Your task to perform on an android device: toggle pop-ups in chrome Image 0: 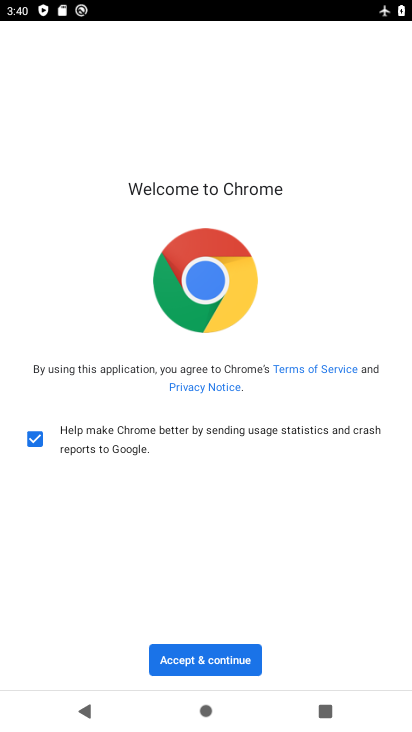
Step 0: click (190, 665)
Your task to perform on an android device: toggle pop-ups in chrome Image 1: 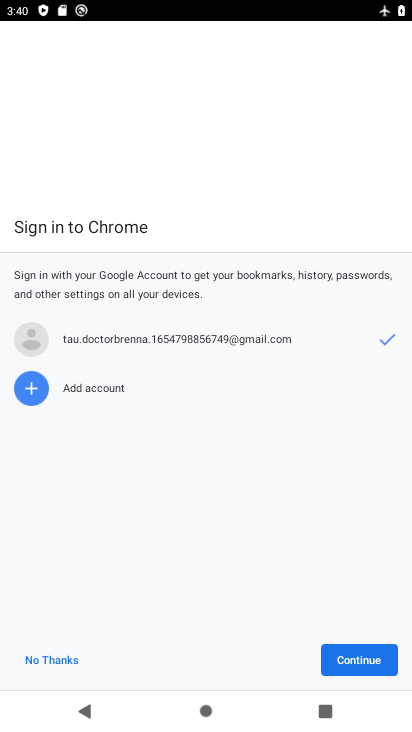
Step 1: click (365, 659)
Your task to perform on an android device: toggle pop-ups in chrome Image 2: 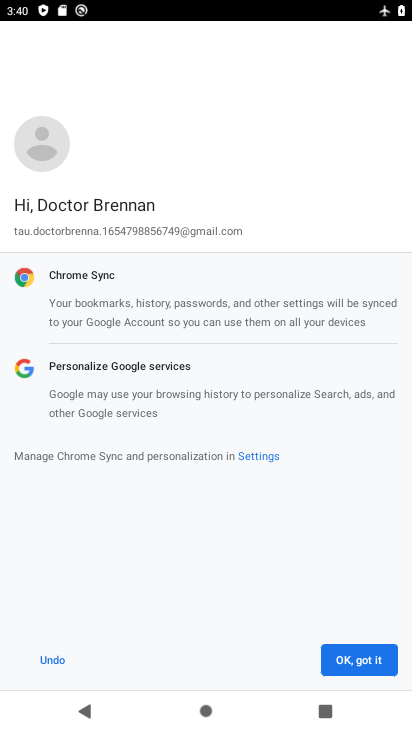
Step 2: press home button
Your task to perform on an android device: toggle pop-ups in chrome Image 3: 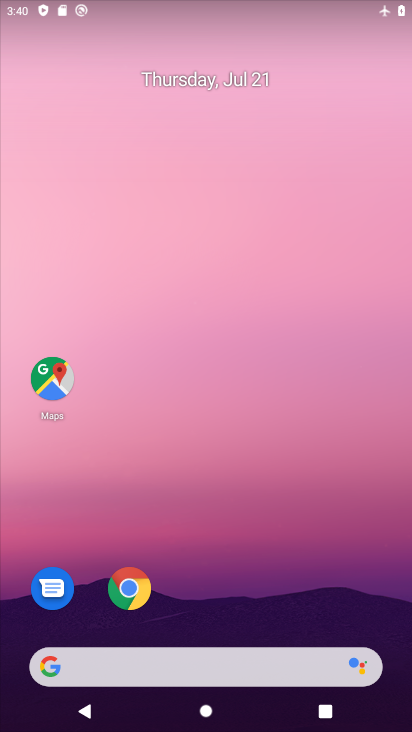
Step 3: click (120, 597)
Your task to perform on an android device: toggle pop-ups in chrome Image 4: 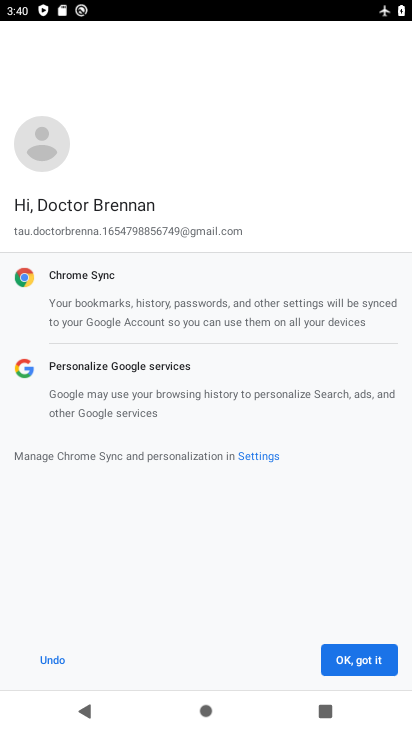
Step 4: click (364, 664)
Your task to perform on an android device: toggle pop-ups in chrome Image 5: 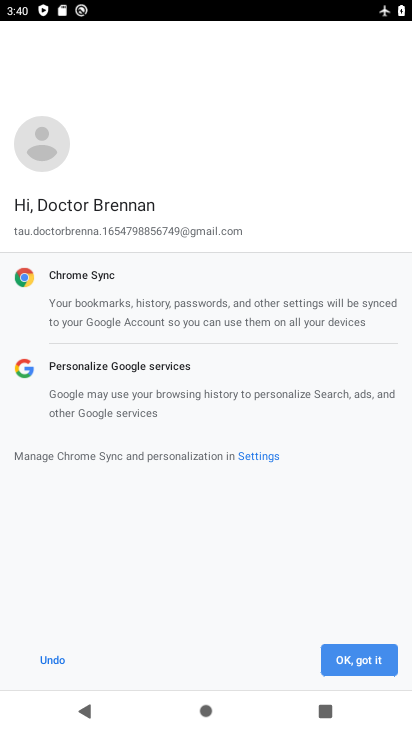
Step 5: click (364, 664)
Your task to perform on an android device: toggle pop-ups in chrome Image 6: 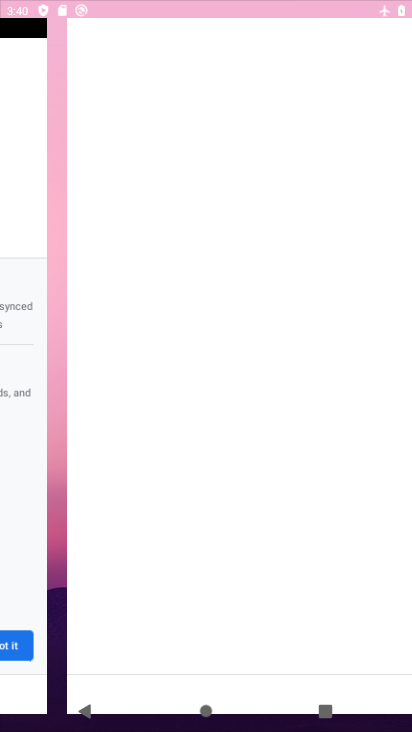
Step 6: click (364, 664)
Your task to perform on an android device: toggle pop-ups in chrome Image 7: 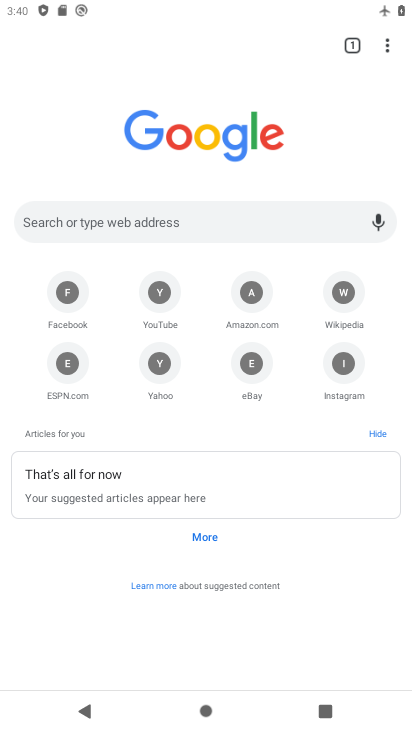
Step 7: drag from (392, 42) to (230, 393)
Your task to perform on an android device: toggle pop-ups in chrome Image 8: 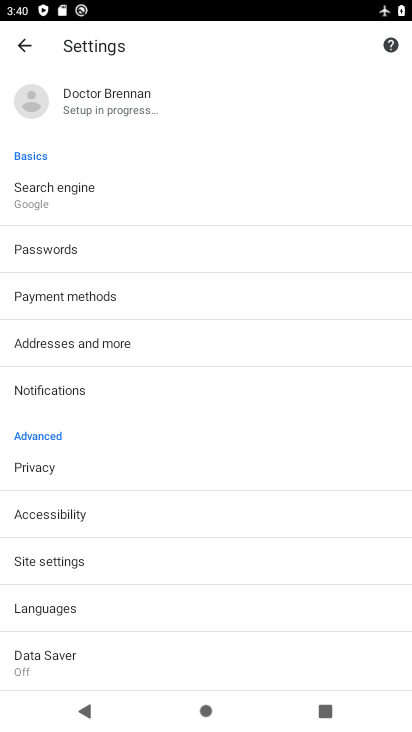
Step 8: click (47, 568)
Your task to perform on an android device: toggle pop-ups in chrome Image 9: 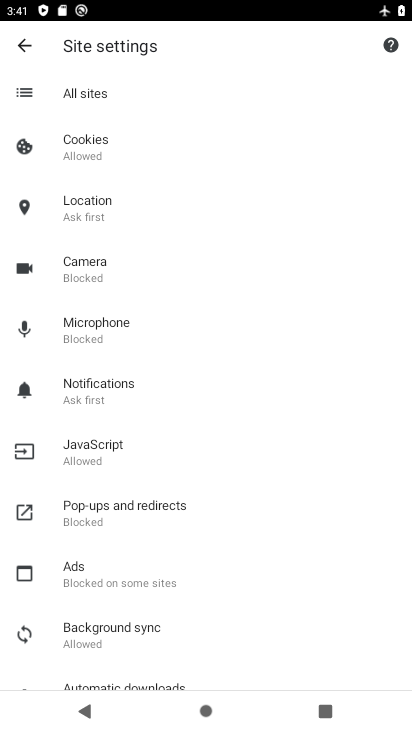
Step 9: click (90, 522)
Your task to perform on an android device: toggle pop-ups in chrome Image 10: 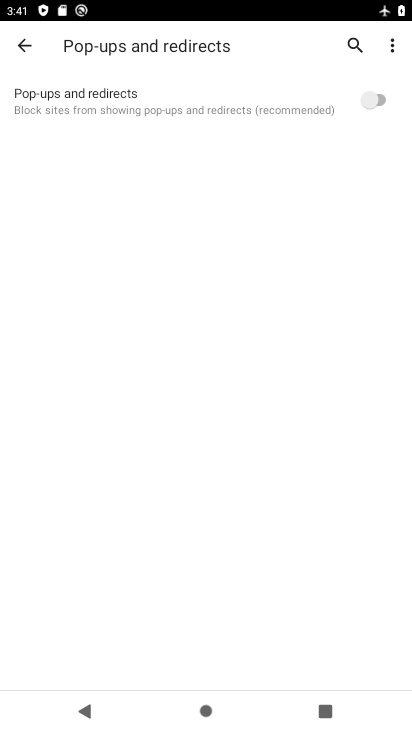
Step 10: click (302, 94)
Your task to perform on an android device: toggle pop-ups in chrome Image 11: 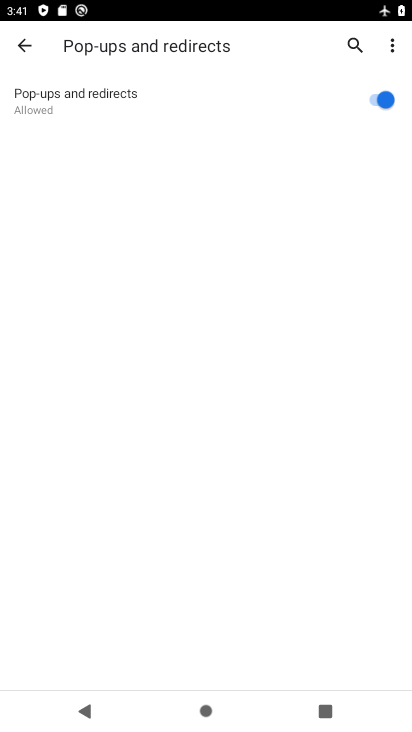
Step 11: task complete